Your task to perform on an android device: change notification settings in the gmail app Image 0: 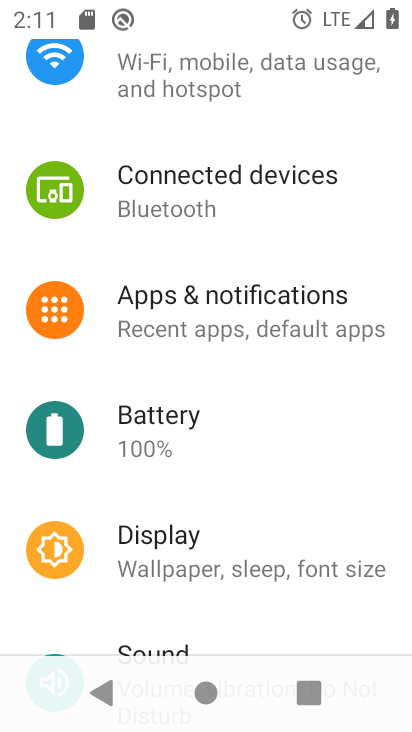
Step 0: drag from (178, 552) to (224, 306)
Your task to perform on an android device: change notification settings in the gmail app Image 1: 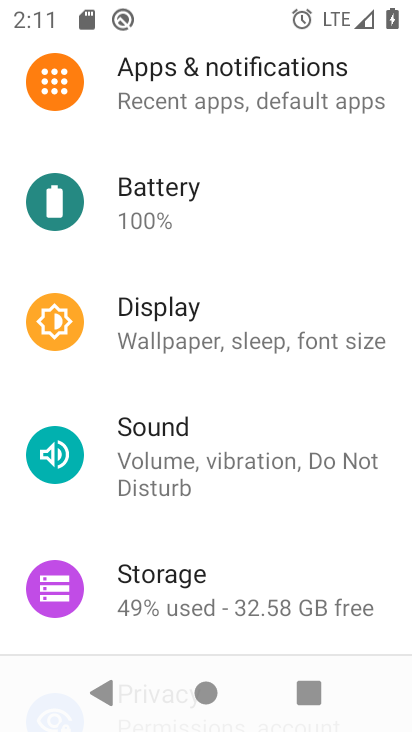
Step 1: press home button
Your task to perform on an android device: change notification settings in the gmail app Image 2: 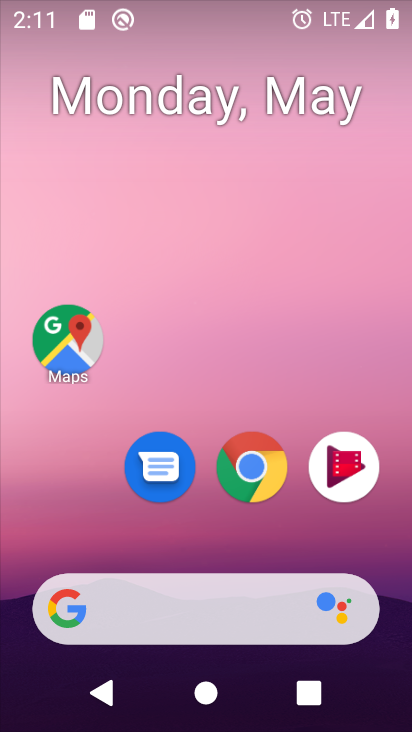
Step 2: drag from (194, 554) to (233, 172)
Your task to perform on an android device: change notification settings in the gmail app Image 3: 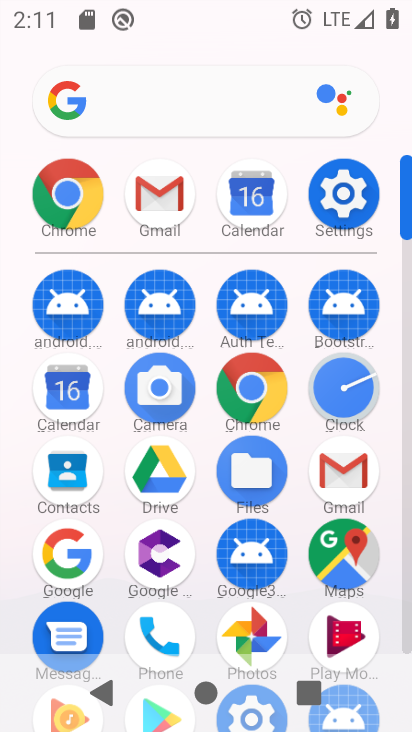
Step 3: click (143, 188)
Your task to perform on an android device: change notification settings in the gmail app Image 4: 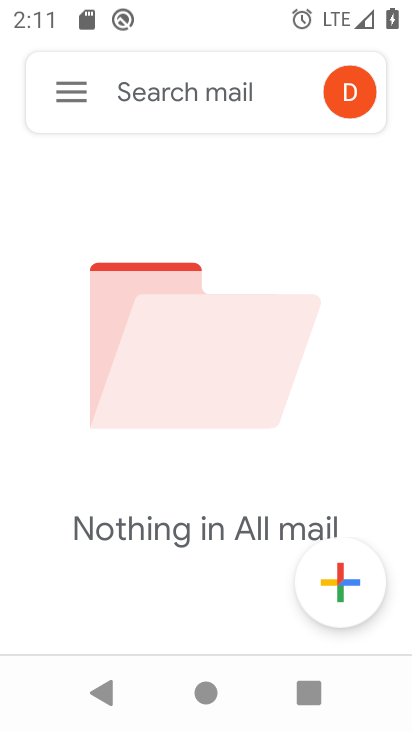
Step 4: click (66, 89)
Your task to perform on an android device: change notification settings in the gmail app Image 5: 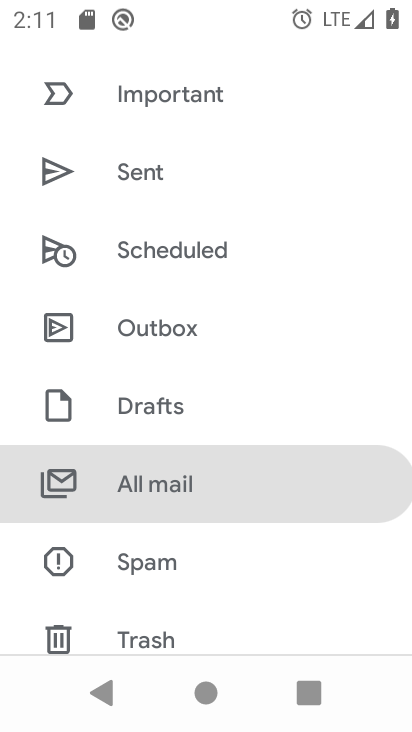
Step 5: drag from (194, 593) to (299, 122)
Your task to perform on an android device: change notification settings in the gmail app Image 6: 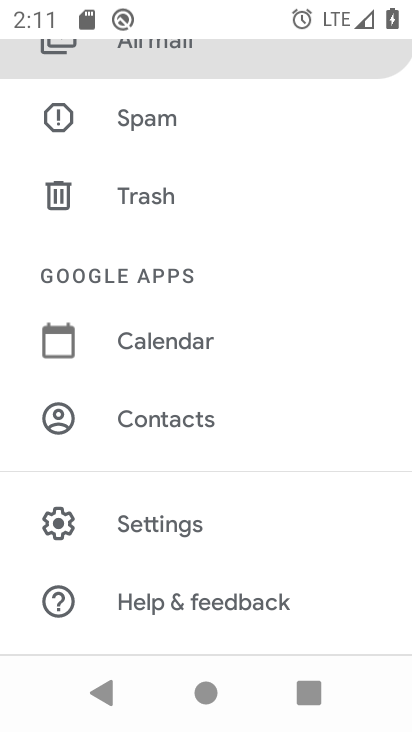
Step 6: click (158, 519)
Your task to perform on an android device: change notification settings in the gmail app Image 7: 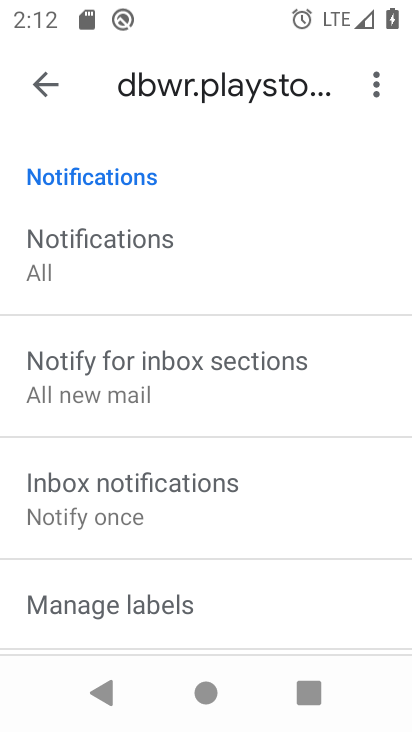
Step 7: click (152, 256)
Your task to perform on an android device: change notification settings in the gmail app Image 8: 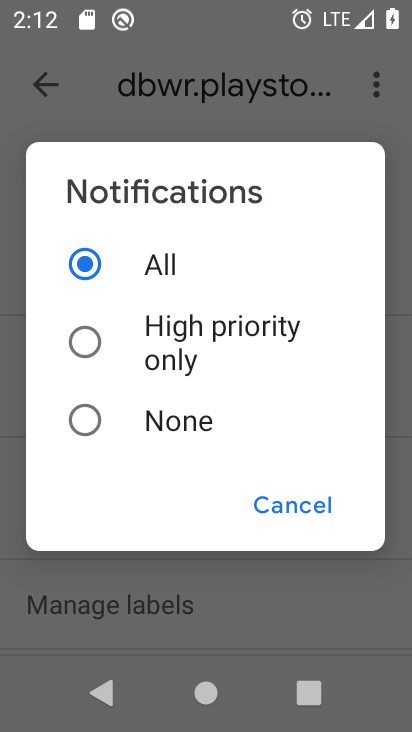
Step 8: click (277, 513)
Your task to perform on an android device: change notification settings in the gmail app Image 9: 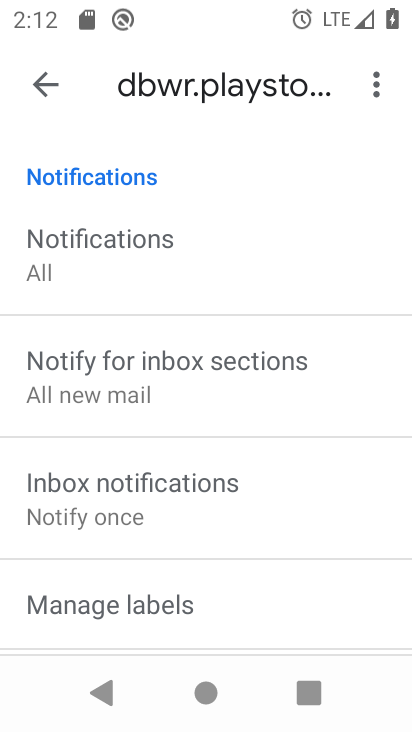
Step 9: click (156, 258)
Your task to perform on an android device: change notification settings in the gmail app Image 10: 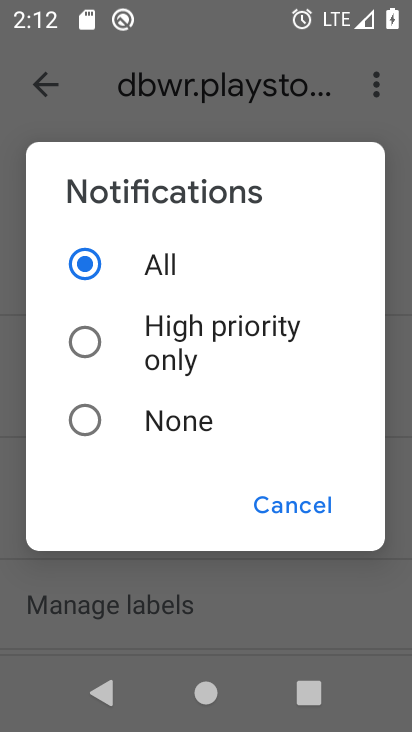
Step 10: click (133, 430)
Your task to perform on an android device: change notification settings in the gmail app Image 11: 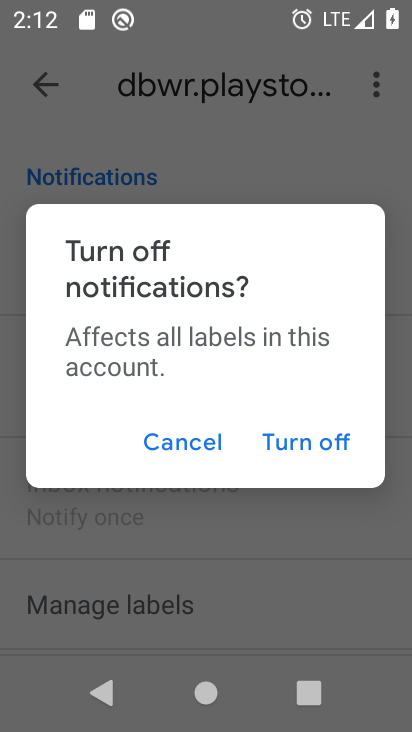
Step 11: click (296, 448)
Your task to perform on an android device: change notification settings in the gmail app Image 12: 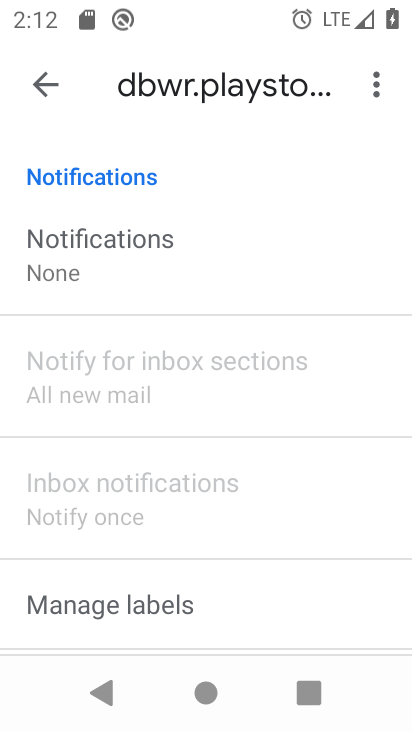
Step 12: task complete